Your task to perform on an android device: Go to network settings Image 0: 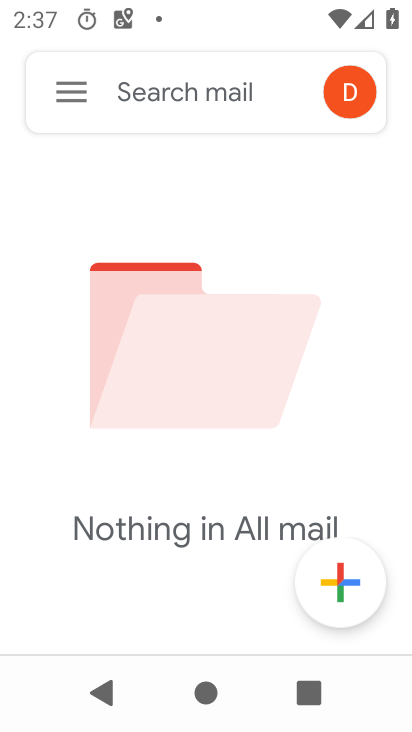
Step 0: press home button
Your task to perform on an android device: Go to network settings Image 1: 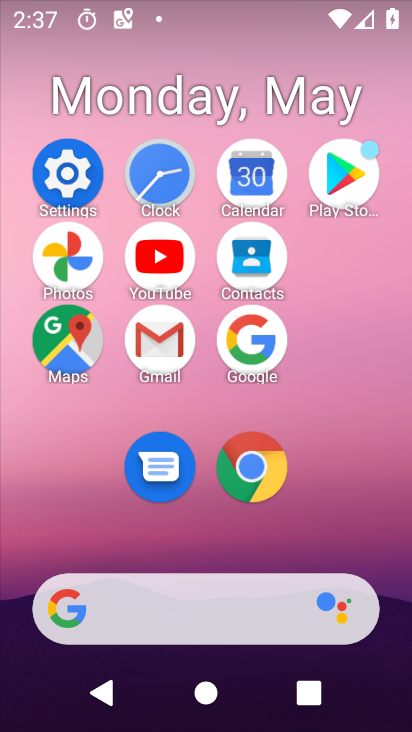
Step 1: click (90, 165)
Your task to perform on an android device: Go to network settings Image 2: 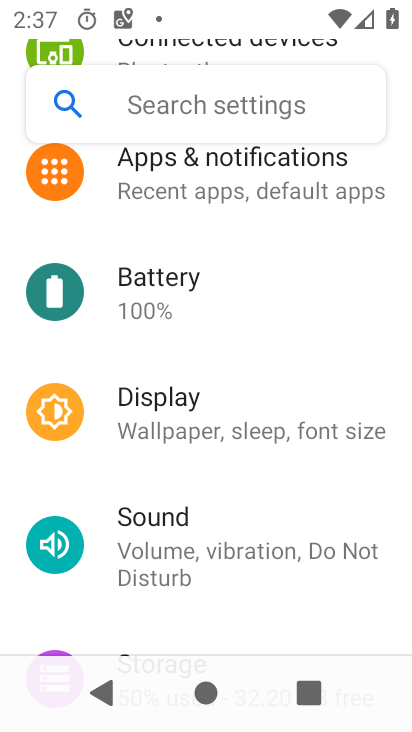
Step 2: drag from (324, 201) to (304, 548)
Your task to perform on an android device: Go to network settings Image 3: 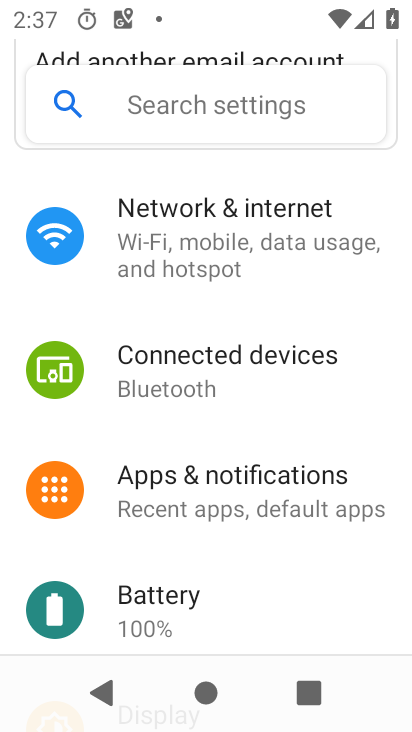
Step 3: click (307, 255)
Your task to perform on an android device: Go to network settings Image 4: 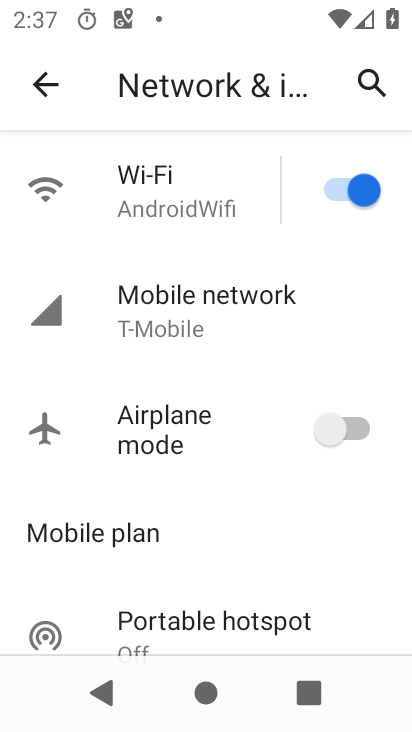
Step 4: task complete